Your task to perform on an android device: Open Chrome and go to the settings page Image 0: 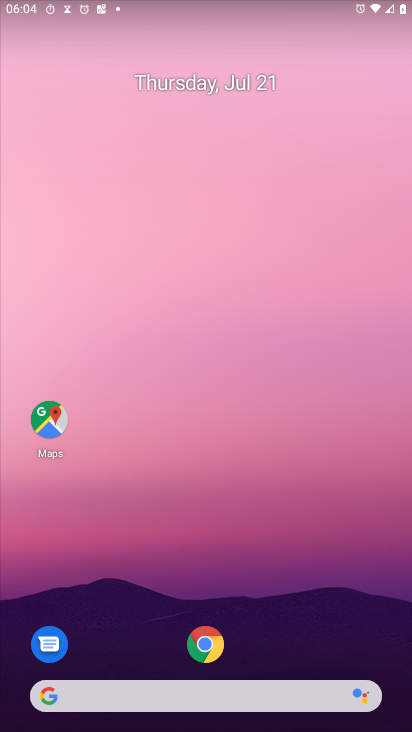
Step 0: press home button
Your task to perform on an android device: Open Chrome and go to the settings page Image 1: 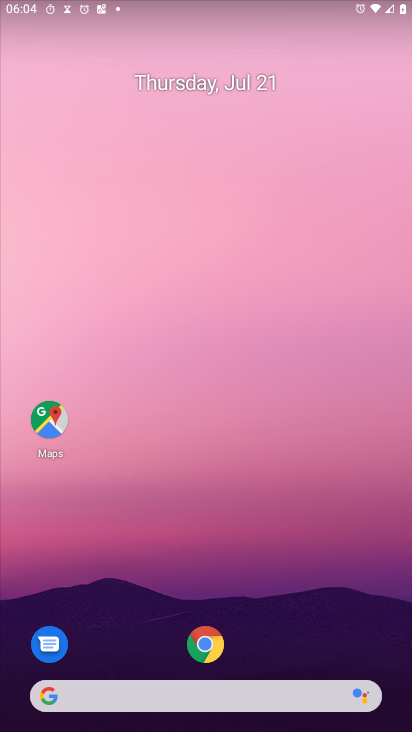
Step 1: click (211, 639)
Your task to perform on an android device: Open Chrome and go to the settings page Image 2: 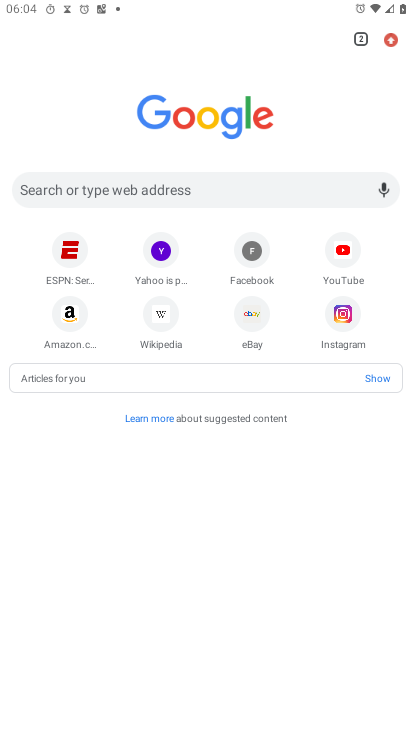
Step 2: task complete